Your task to perform on an android device: Do I have any events today? Image 0: 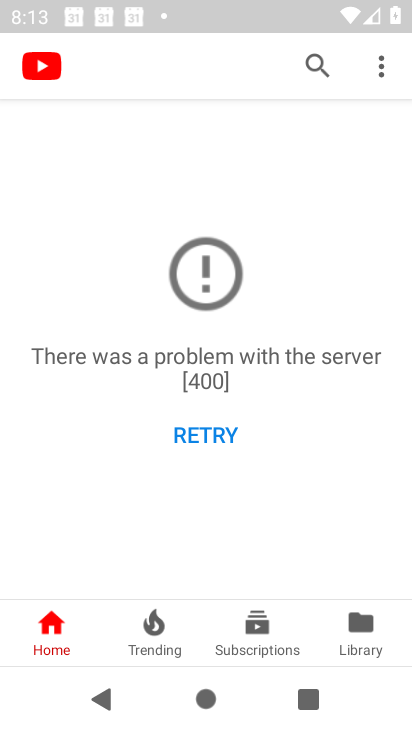
Step 0: press home button
Your task to perform on an android device: Do I have any events today? Image 1: 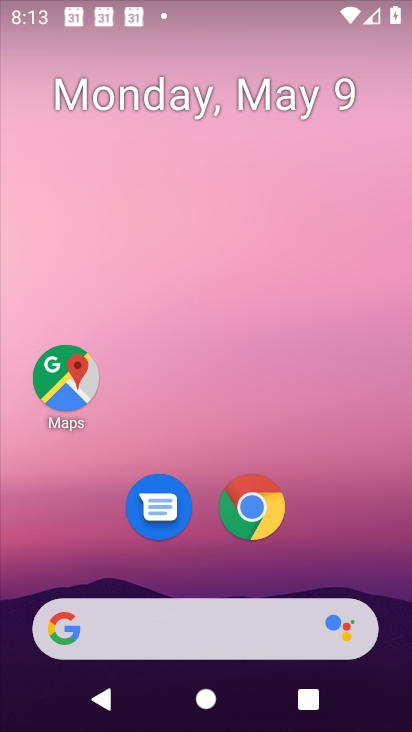
Step 1: drag from (221, 583) to (182, 3)
Your task to perform on an android device: Do I have any events today? Image 2: 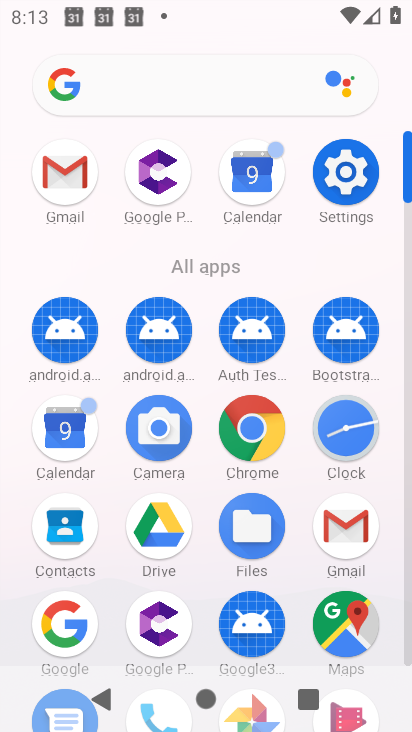
Step 2: click (19, 427)
Your task to perform on an android device: Do I have any events today? Image 3: 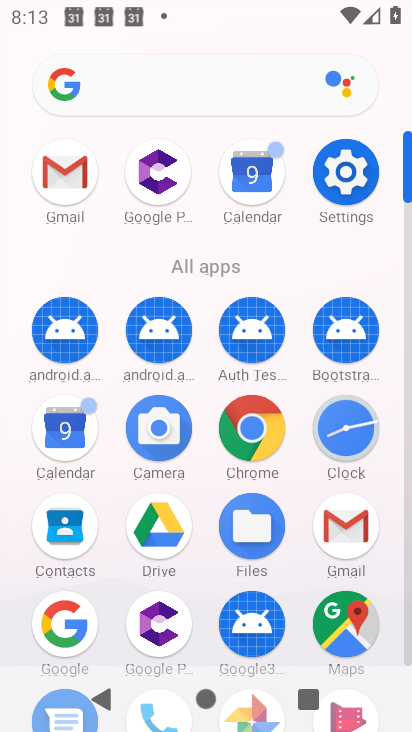
Step 3: click (45, 428)
Your task to perform on an android device: Do I have any events today? Image 4: 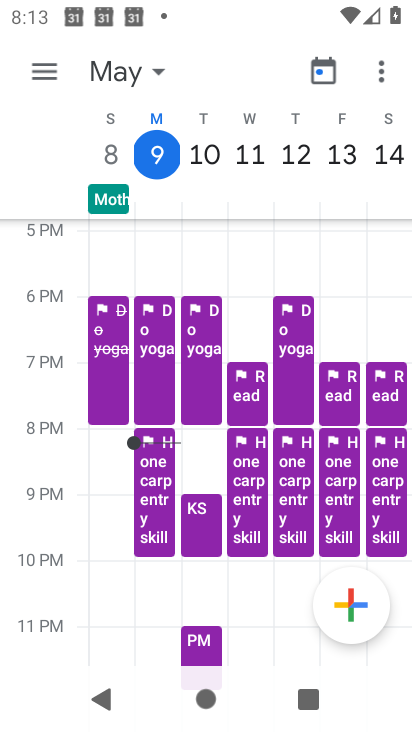
Step 4: click (147, 159)
Your task to perform on an android device: Do I have any events today? Image 5: 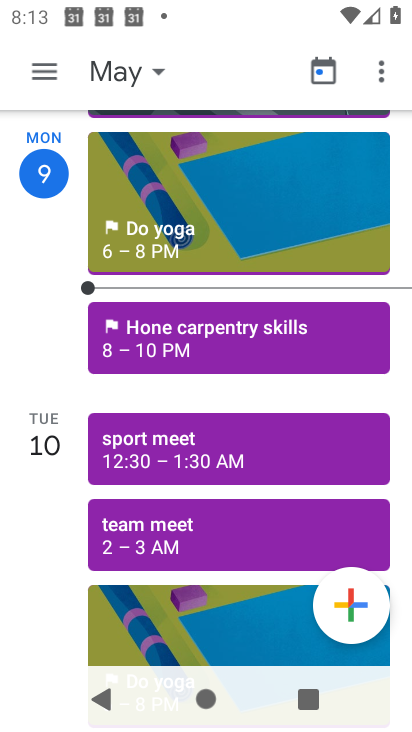
Step 5: task complete